Your task to perform on an android device: add a contact Image 0: 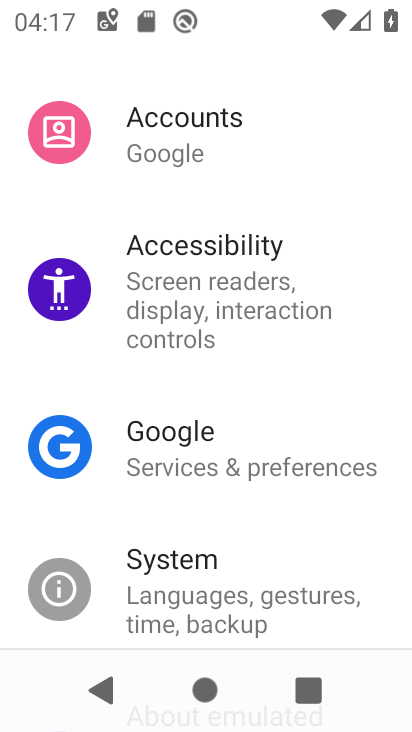
Step 0: press home button
Your task to perform on an android device: add a contact Image 1: 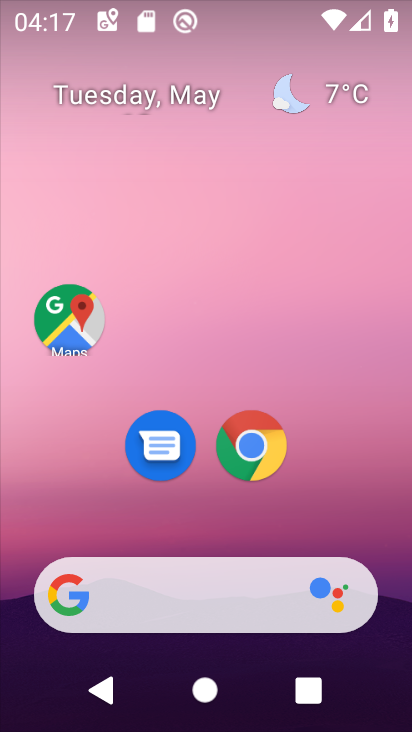
Step 1: drag from (212, 515) to (269, 59)
Your task to perform on an android device: add a contact Image 2: 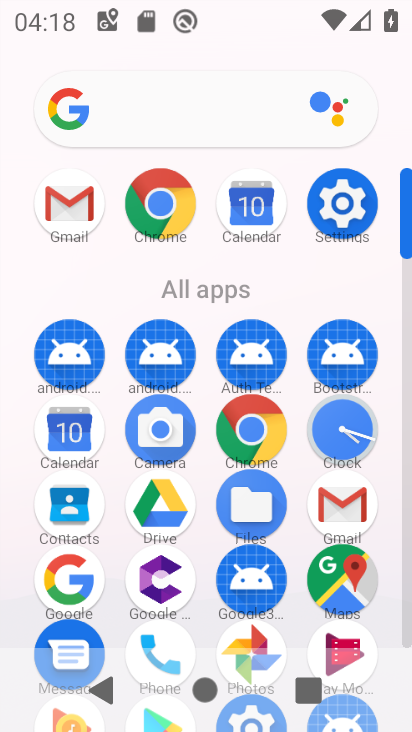
Step 2: click (63, 516)
Your task to perform on an android device: add a contact Image 3: 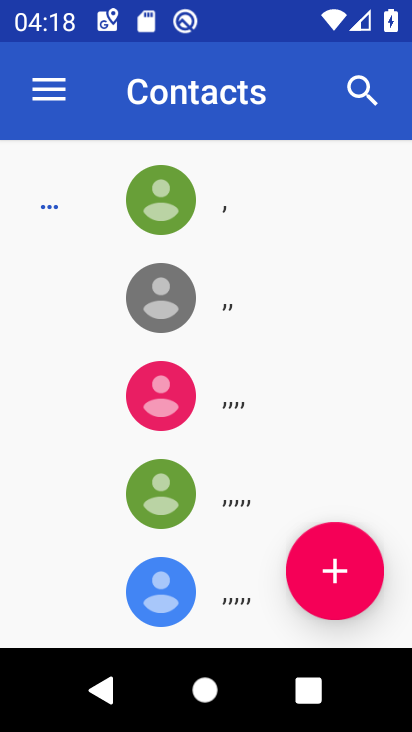
Step 3: click (313, 572)
Your task to perform on an android device: add a contact Image 4: 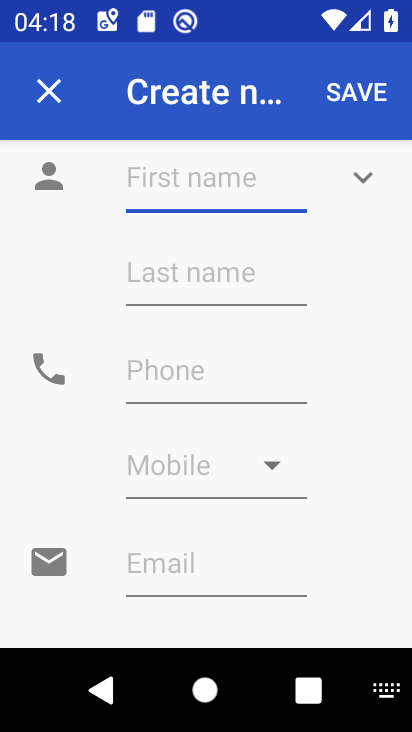
Step 4: type "kindle"
Your task to perform on an android device: add a contact Image 5: 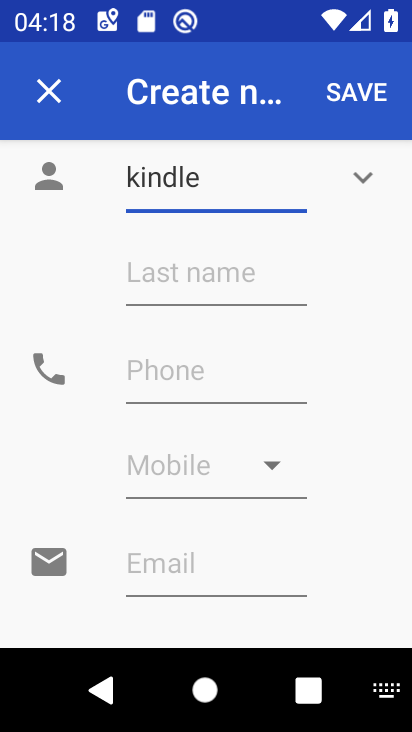
Step 5: click (367, 100)
Your task to perform on an android device: add a contact Image 6: 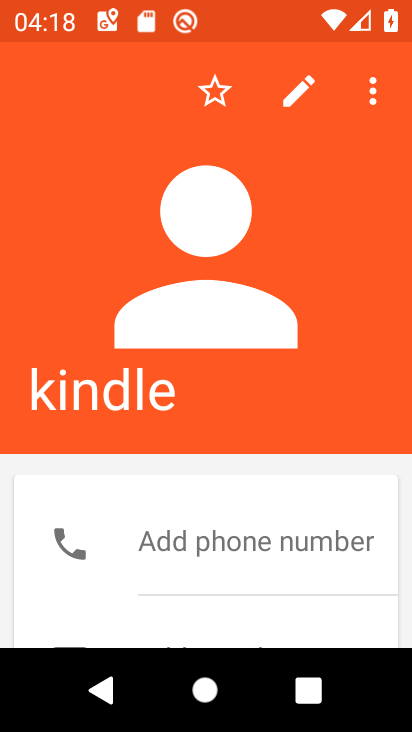
Step 6: task complete